Your task to perform on an android device: Open accessibility settings Image 0: 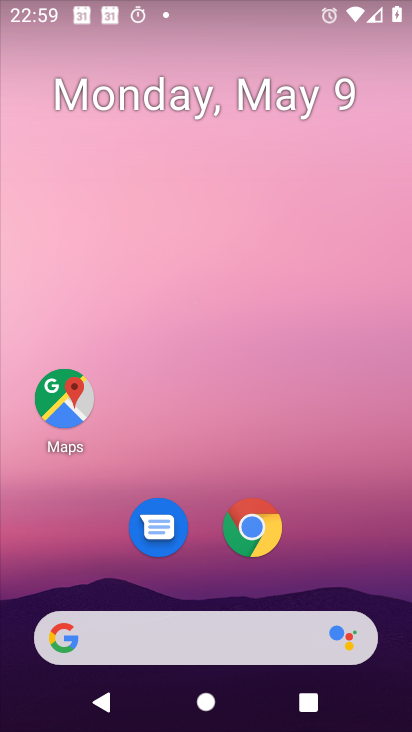
Step 0: drag from (205, 561) to (226, 91)
Your task to perform on an android device: Open accessibility settings Image 1: 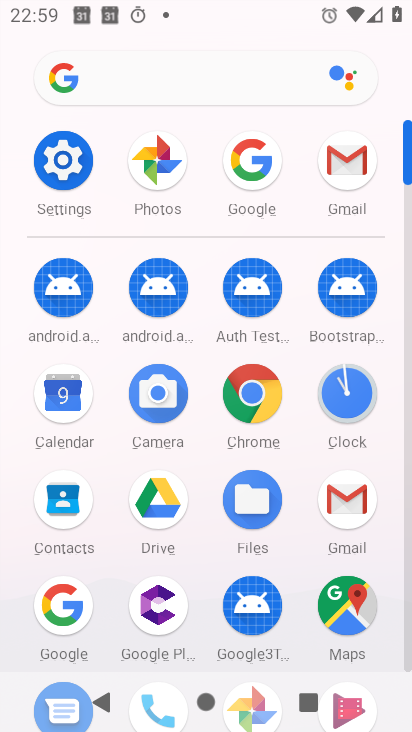
Step 1: click (60, 169)
Your task to perform on an android device: Open accessibility settings Image 2: 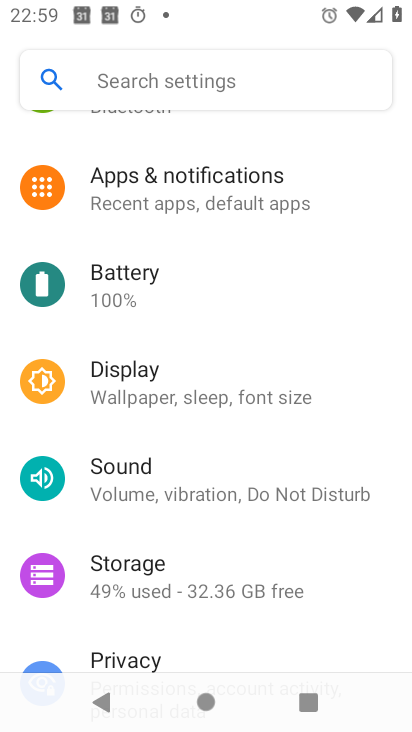
Step 2: drag from (212, 531) to (274, 9)
Your task to perform on an android device: Open accessibility settings Image 3: 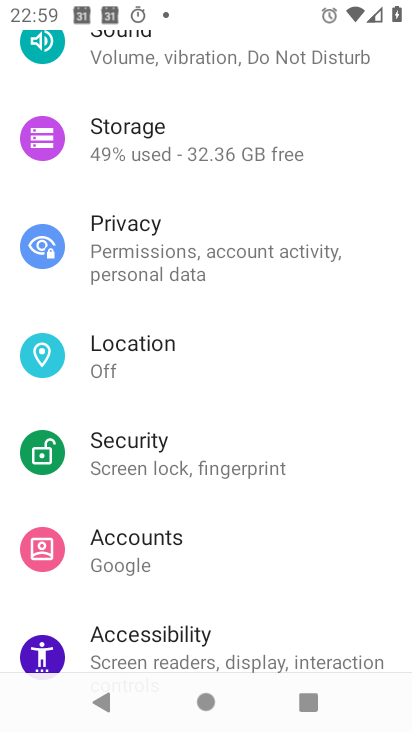
Step 3: click (182, 631)
Your task to perform on an android device: Open accessibility settings Image 4: 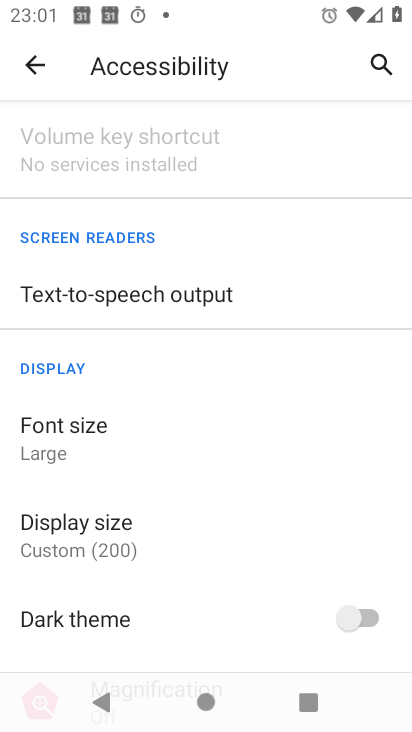
Step 4: task complete